Your task to perform on an android device: Open Google Chrome and click the shortcut for Amazon.com Image 0: 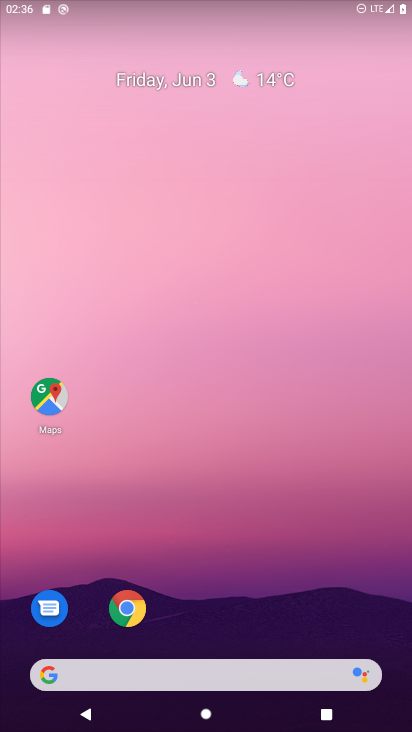
Step 0: click (125, 608)
Your task to perform on an android device: Open Google Chrome and click the shortcut for Amazon.com Image 1: 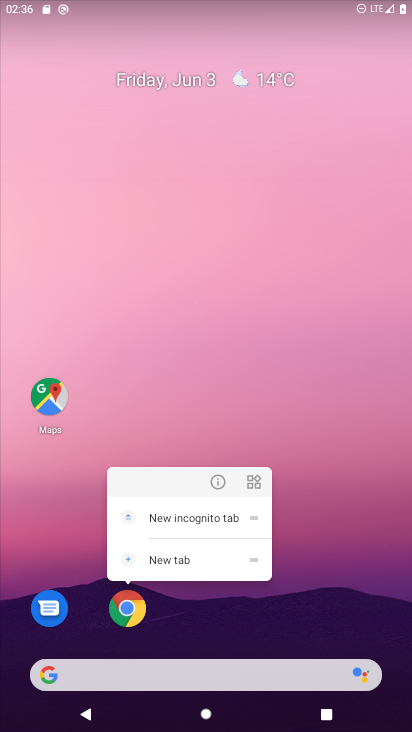
Step 1: click (127, 616)
Your task to perform on an android device: Open Google Chrome and click the shortcut for Amazon.com Image 2: 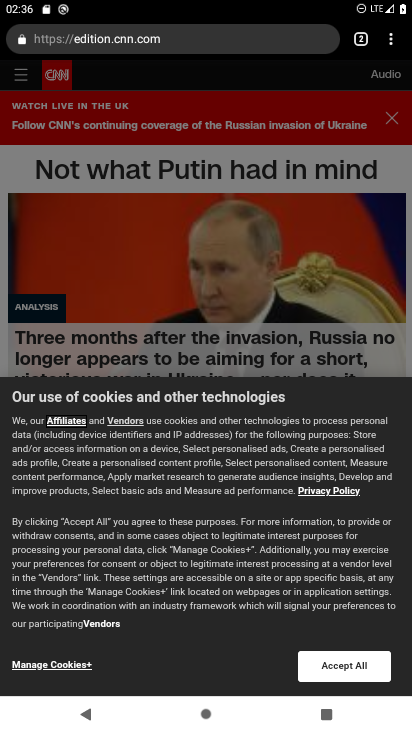
Step 2: drag from (391, 37) to (263, 121)
Your task to perform on an android device: Open Google Chrome and click the shortcut for Amazon.com Image 3: 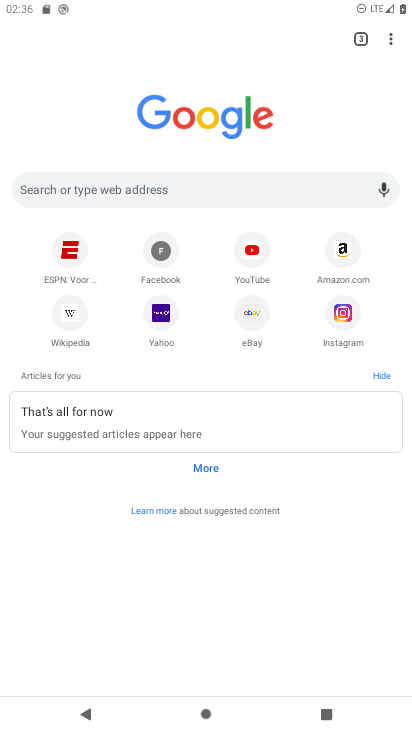
Step 3: click (342, 249)
Your task to perform on an android device: Open Google Chrome and click the shortcut for Amazon.com Image 4: 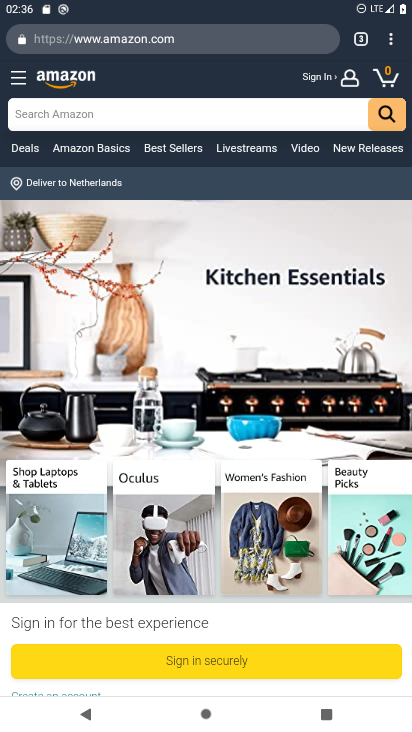
Step 4: task complete